Your task to perform on an android device: check out phone information Image 0: 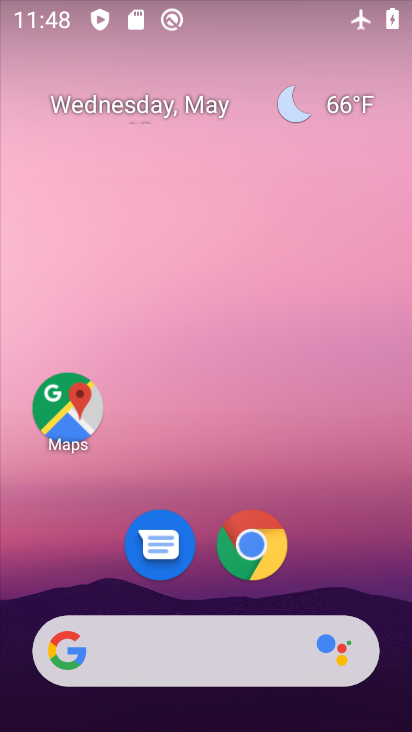
Step 0: drag from (244, 728) to (244, 13)
Your task to perform on an android device: check out phone information Image 1: 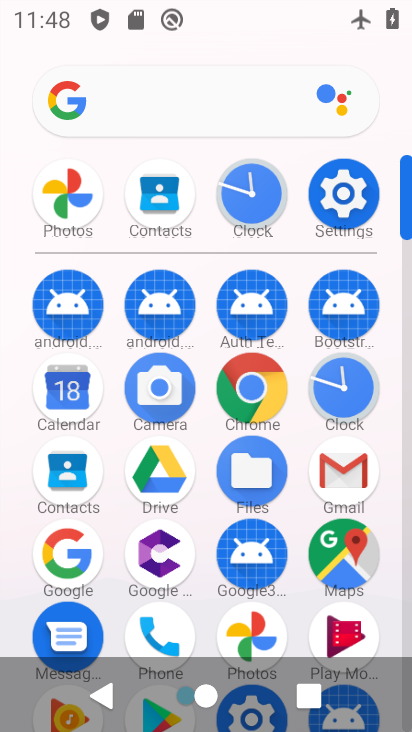
Step 1: click (333, 196)
Your task to perform on an android device: check out phone information Image 2: 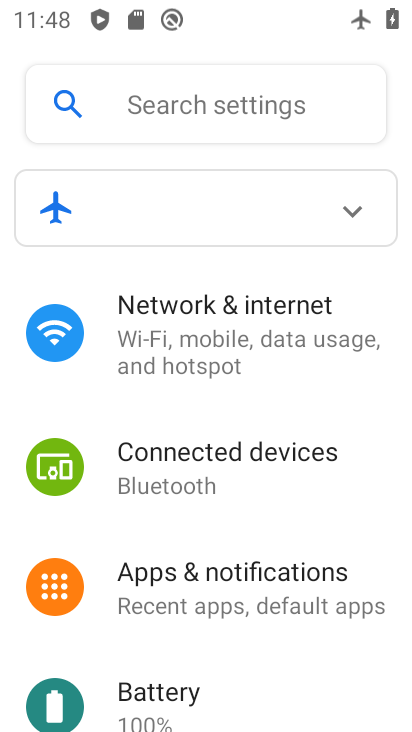
Step 2: drag from (258, 669) to (367, 28)
Your task to perform on an android device: check out phone information Image 3: 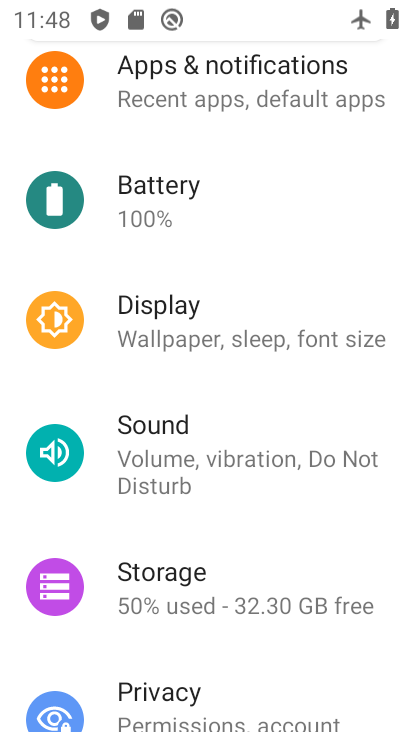
Step 3: drag from (268, 620) to (345, 128)
Your task to perform on an android device: check out phone information Image 4: 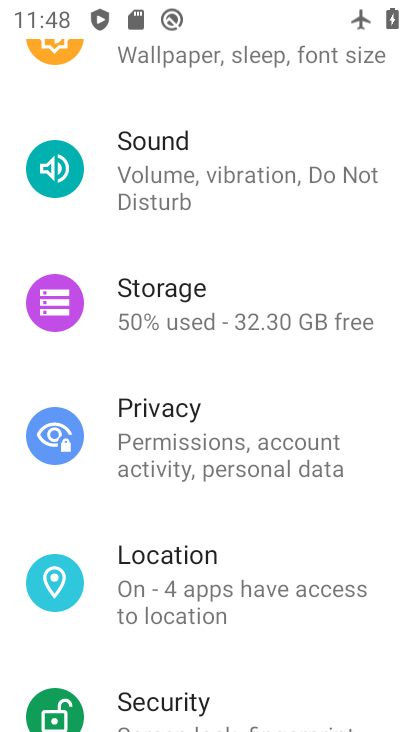
Step 4: drag from (229, 526) to (229, 154)
Your task to perform on an android device: check out phone information Image 5: 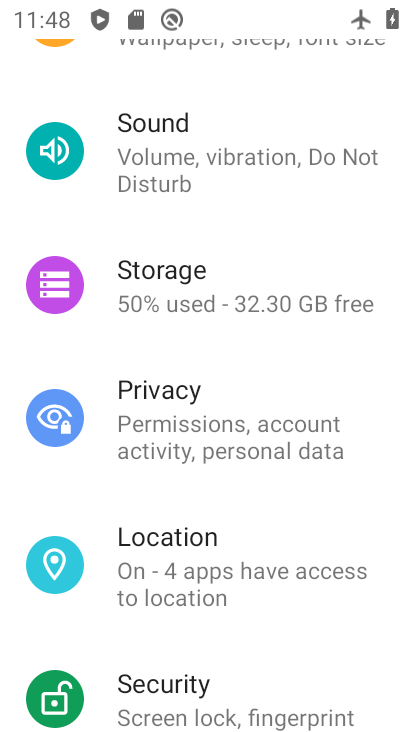
Step 5: drag from (260, 658) to (289, 170)
Your task to perform on an android device: check out phone information Image 6: 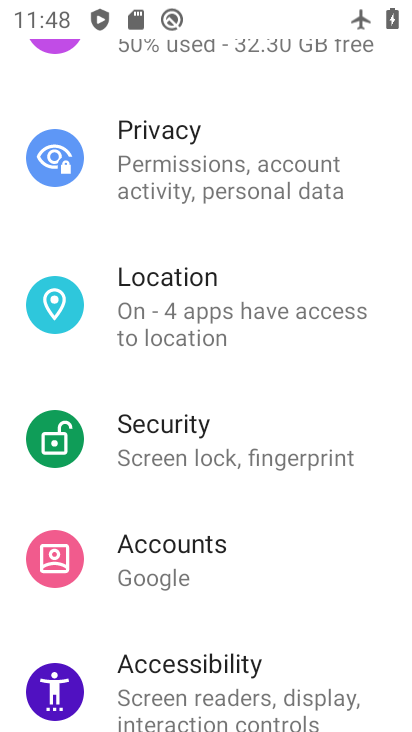
Step 6: drag from (305, 636) to (305, 256)
Your task to perform on an android device: check out phone information Image 7: 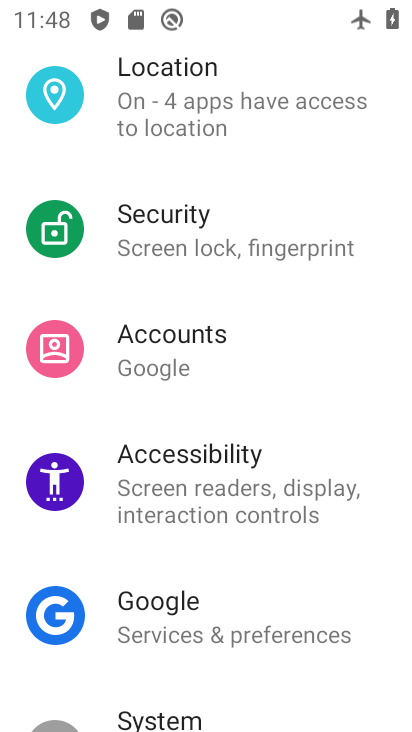
Step 7: drag from (254, 693) to (186, 198)
Your task to perform on an android device: check out phone information Image 8: 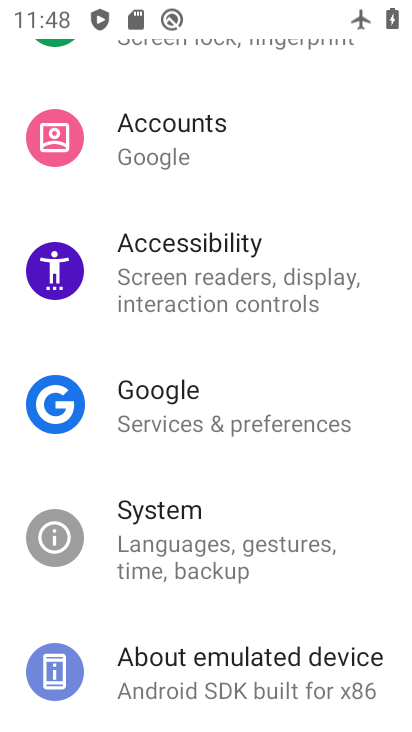
Step 8: click (259, 678)
Your task to perform on an android device: check out phone information Image 9: 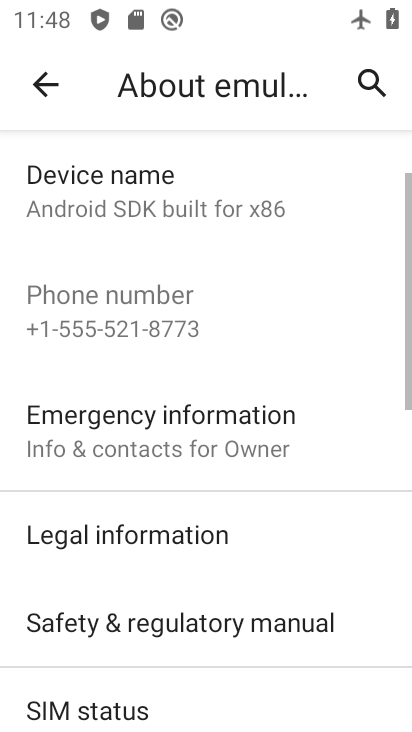
Step 9: task complete